Your task to perform on an android device: Go to Yahoo.com Image 0: 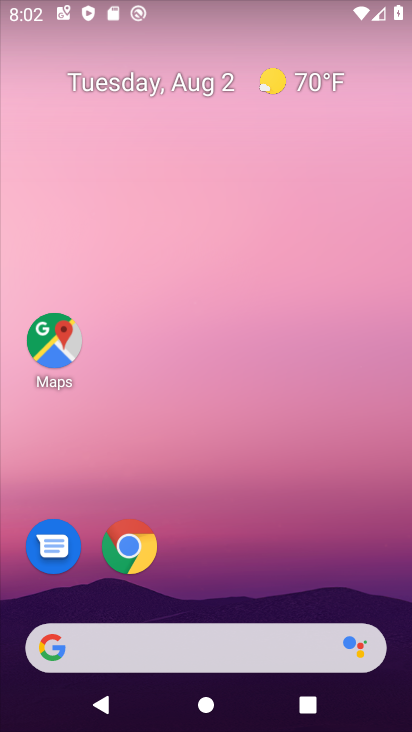
Step 0: click (140, 553)
Your task to perform on an android device: Go to Yahoo.com Image 1: 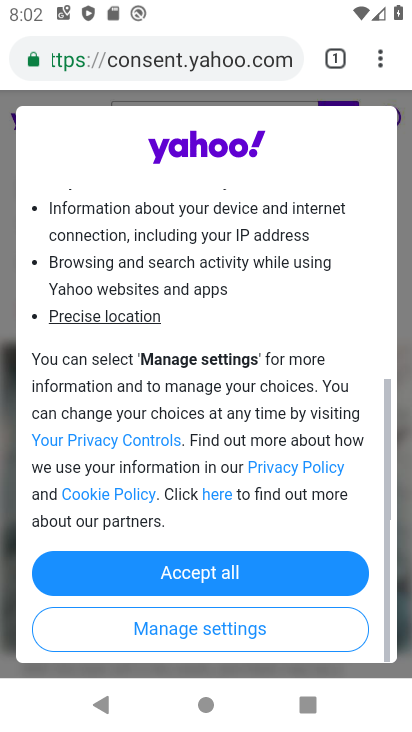
Step 1: click (222, 139)
Your task to perform on an android device: Go to Yahoo.com Image 2: 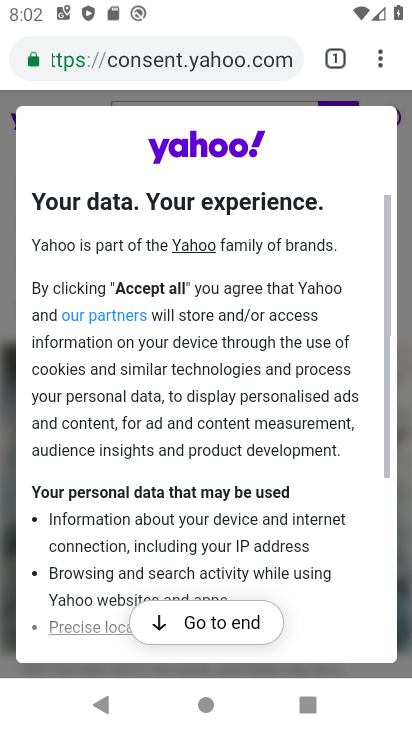
Step 2: click (192, 61)
Your task to perform on an android device: Go to Yahoo.com Image 3: 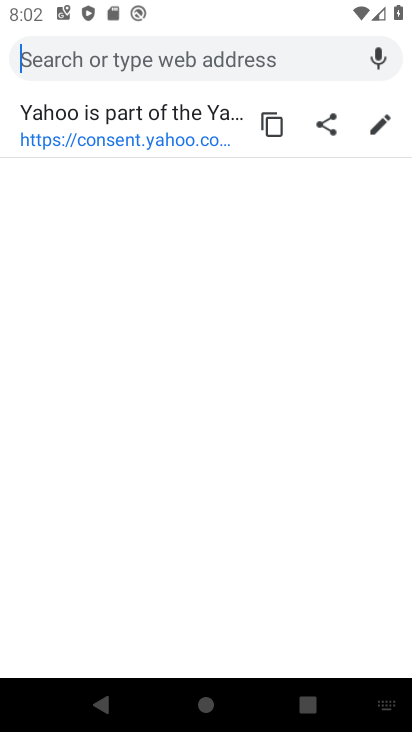
Step 3: type "yahoo.com"
Your task to perform on an android device: Go to Yahoo.com Image 4: 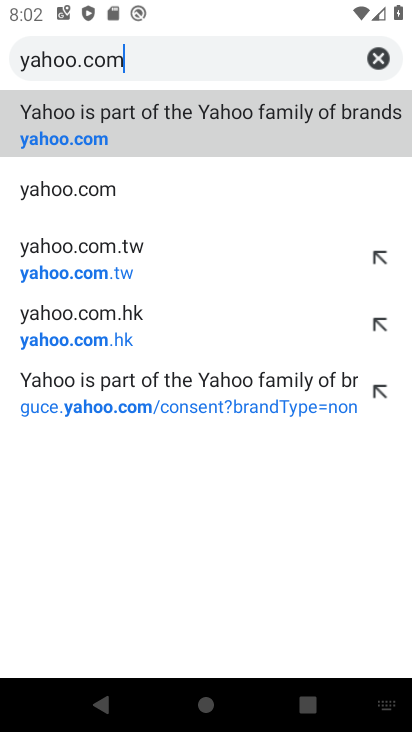
Step 4: click (182, 118)
Your task to perform on an android device: Go to Yahoo.com Image 5: 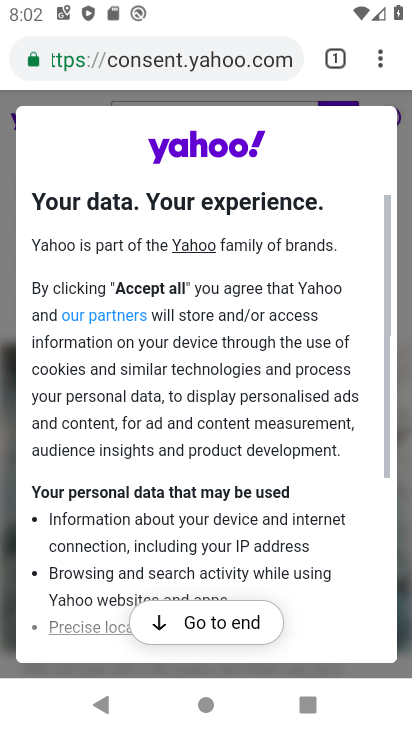
Step 5: task complete